Your task to perform on an android device: install app "Yahoo Mail" Image 0: 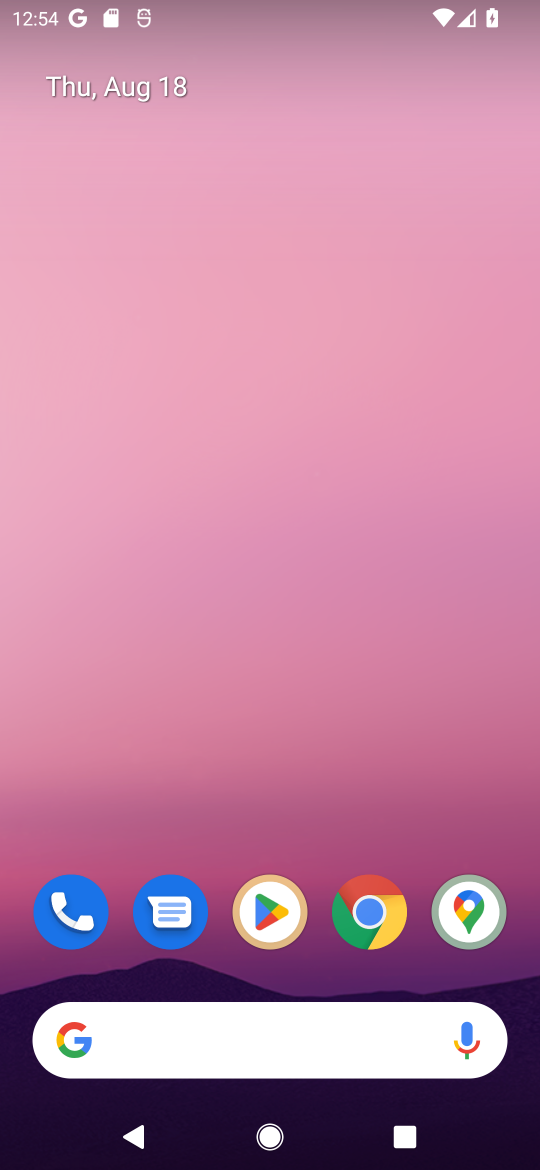
Step 0: click (261, 912)
Your task to perform on an android device: install app "Yahoo Mail" Image 1: 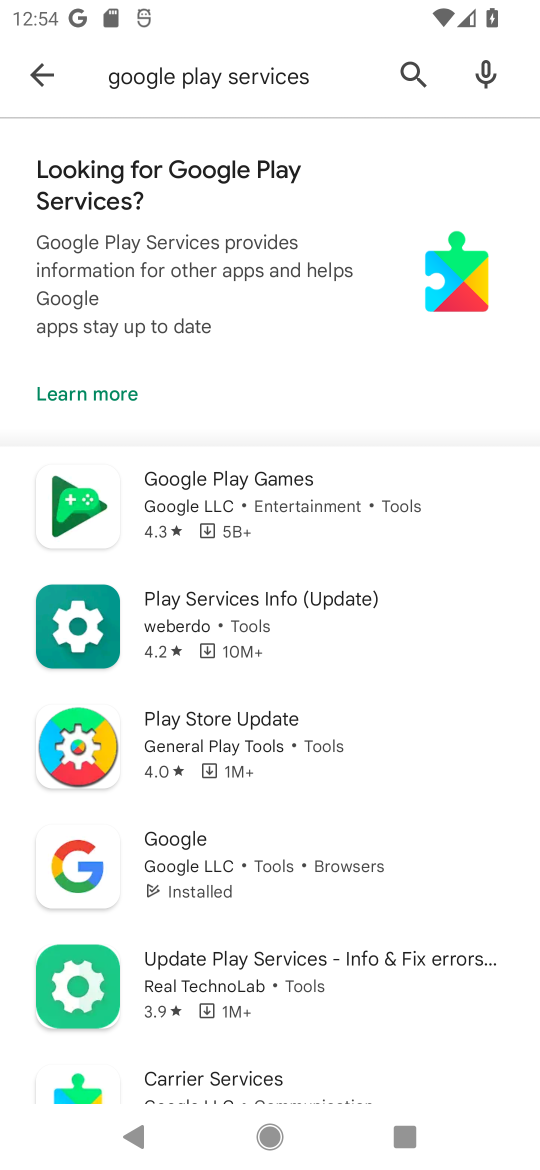
Step 1: click (427, 76)
Your task to perform on an android device: install app "Yahoo Mail" Image 2: 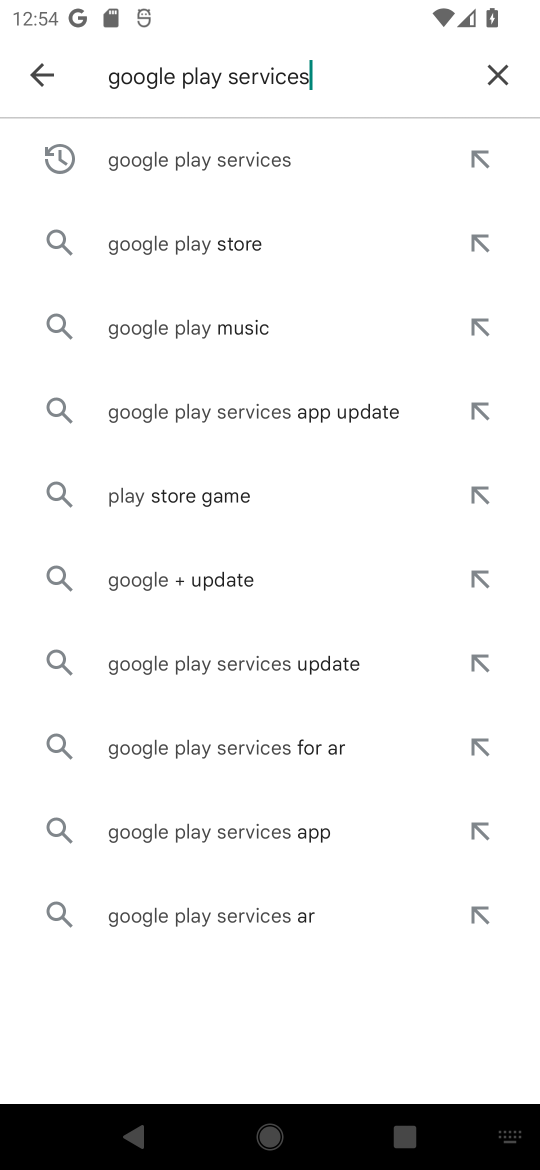
Step 2: click (507, 60)
Your task to perform on an android device: install app "Yahoo Mail" Image 3: 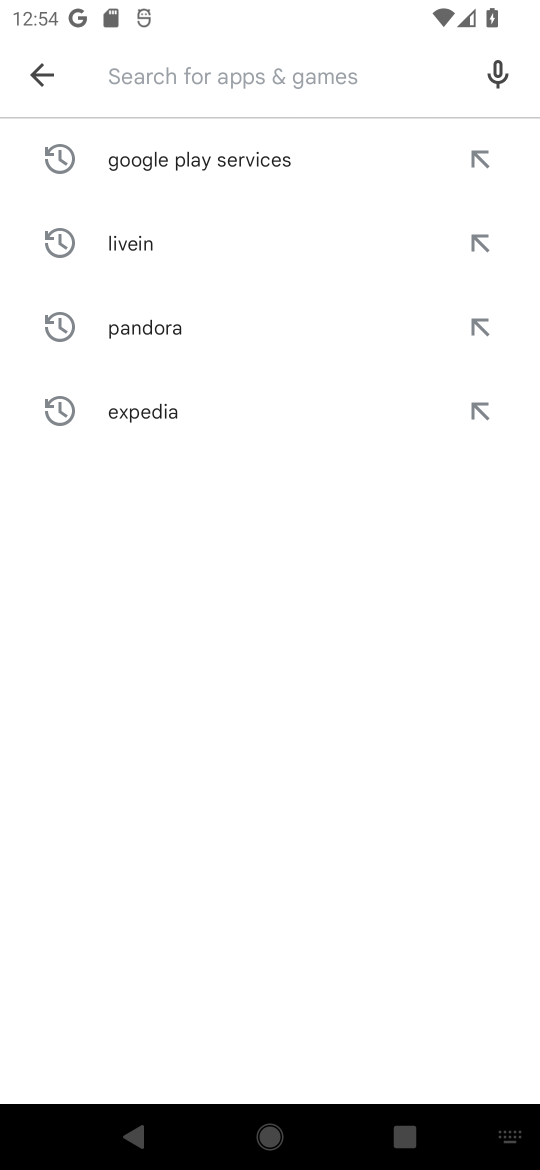
Step 3: click (133, 54)
Your task to perform on an android device: install app "Yahoo Mail" Image 4: 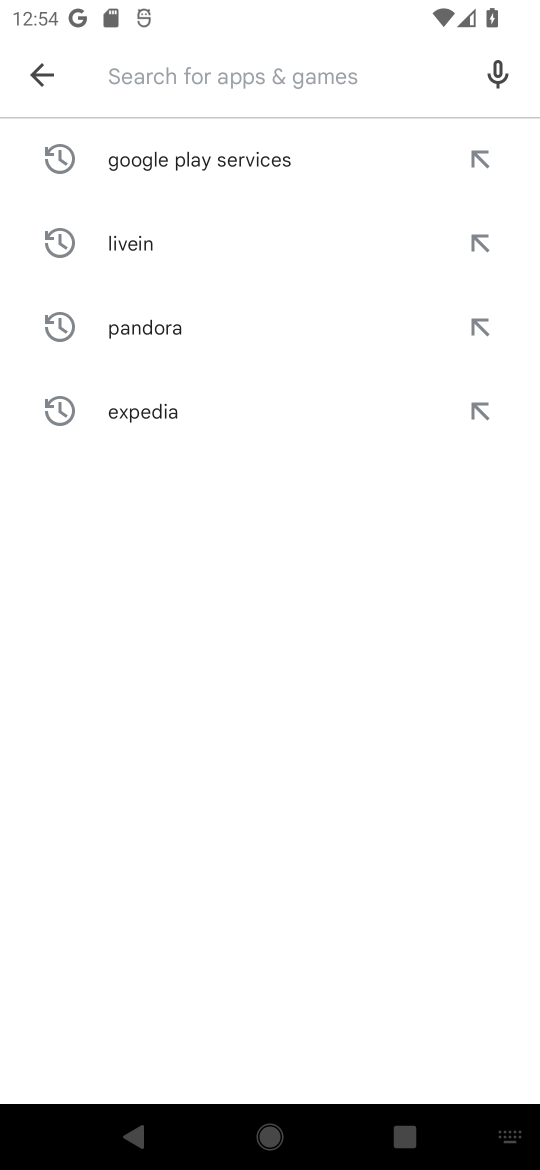
Step 4: type "Yahoo Mail"
Your task to perform on an android device: install app "Yahoo Mail" Image 5: 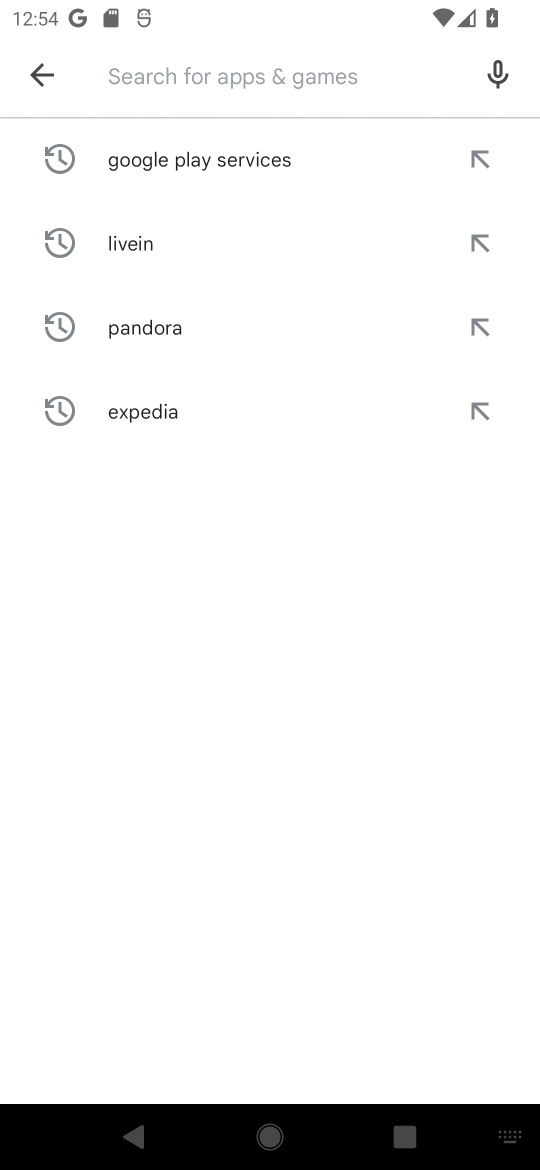
Step 5: click (305, 750)
Your task to perform on an android device: install app "Yahoo Mail" Image 6: 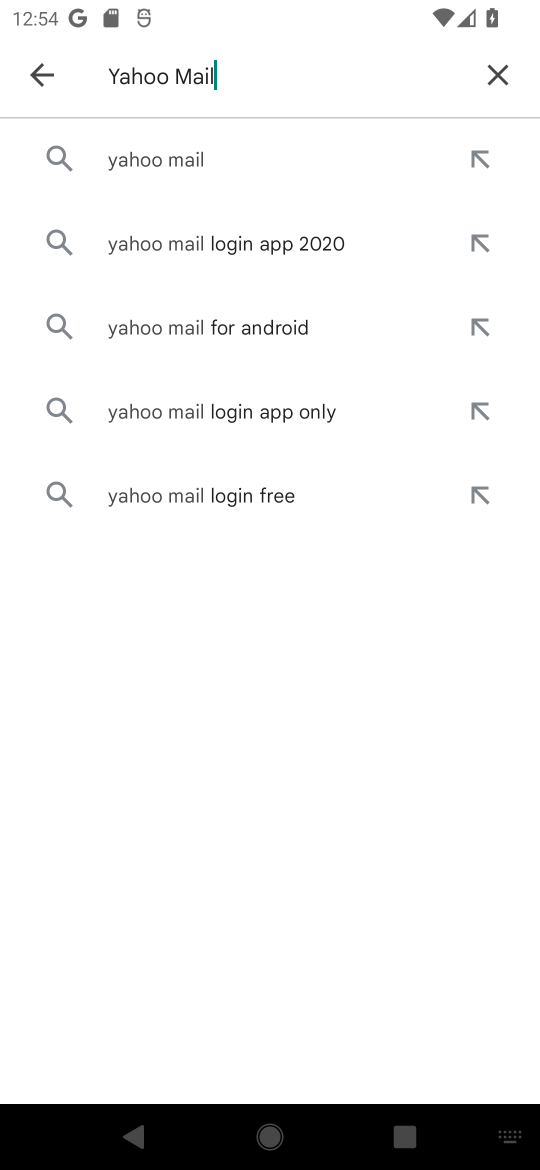
Step 6: click (175, 151)
Your task to perform on an android device: install app "Yahoo Mail" Image 7: 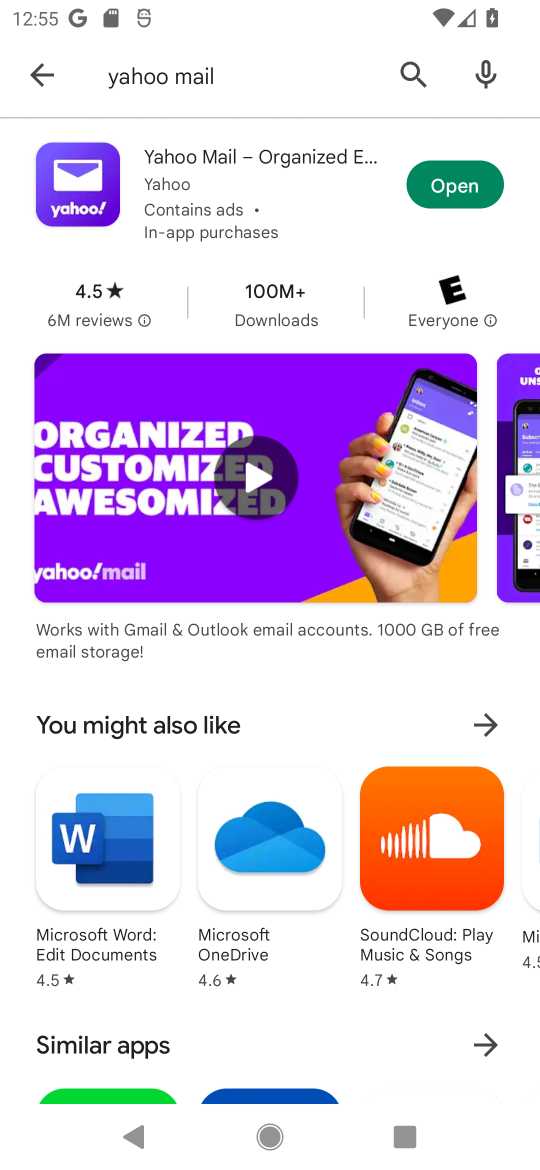
Step 7: task complete